Your task to perform on an android device: turn off translation in the chrome app Image 0: 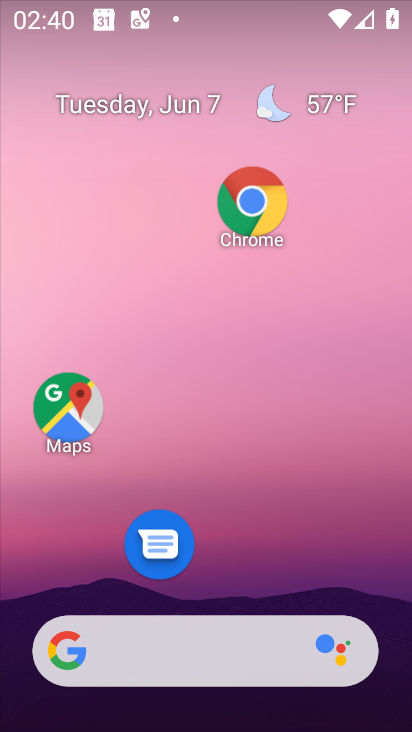
Step 0: click (260, 195)
Your task to perform on an android device: turn off translation in the chrome app Image 1: 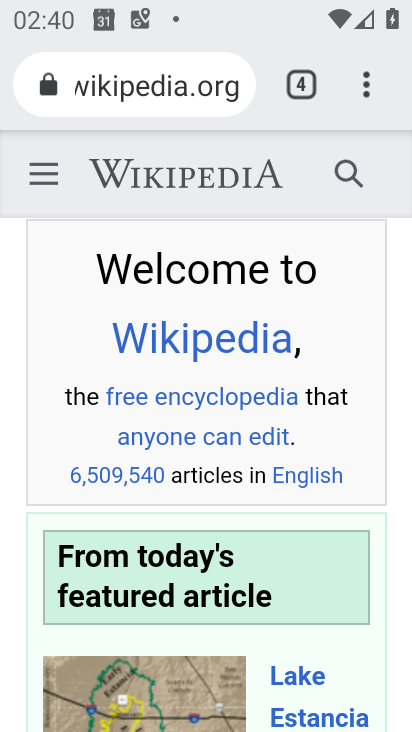
Step 1: click (380, 82)
Your task to perform on an android device: turn off translation in the chrome app Image 2: 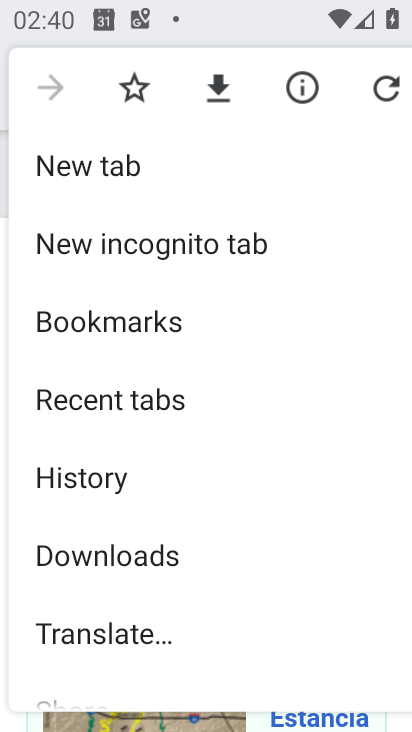
Step 2: drag from (168, 593) to (182, 283)
Your task to perform on an android device: turn off translation in the chrome app Image 3: 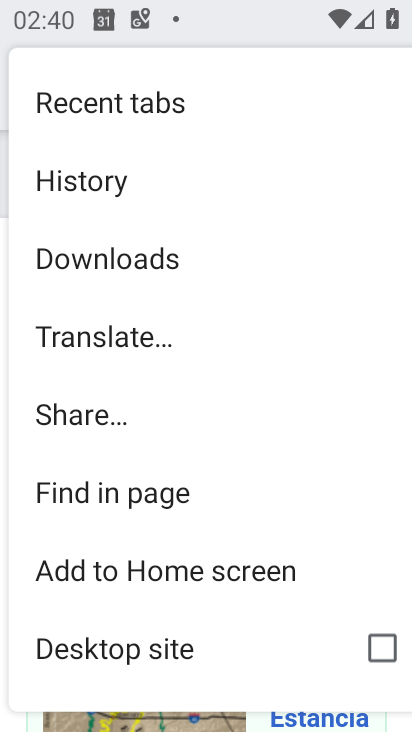
Step 3: drag from (146, 611) to (235, 258)
Your task to perform on an android device: turn off translation in the chrome app Image 4: 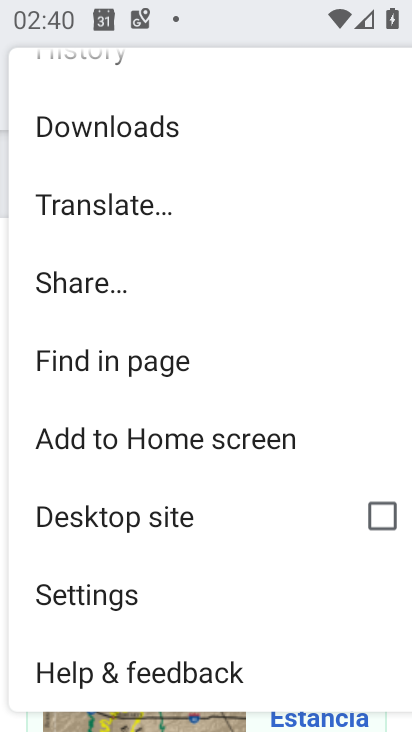
Step 4: click (102, 600)
Your task to perform on an android device: turn off translation in the chrome app Image 5: 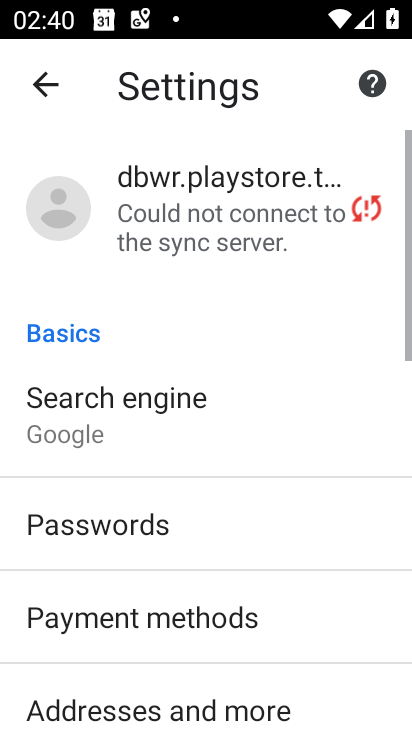
Step 5: drag from (157, 595) to (208, 222)
Your task to perform on an android device: turn off translation in the chrome app Image 6: 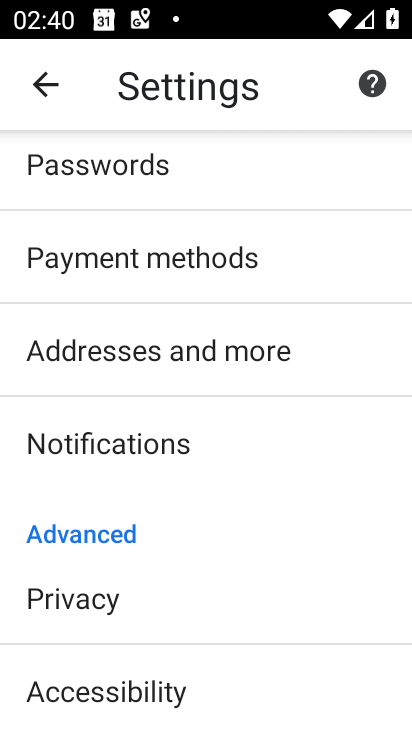
Step 6: drag from (143, 615) to (186, 309)
Your task to perform on an android device: turn off translation in the chrome app Image 7: 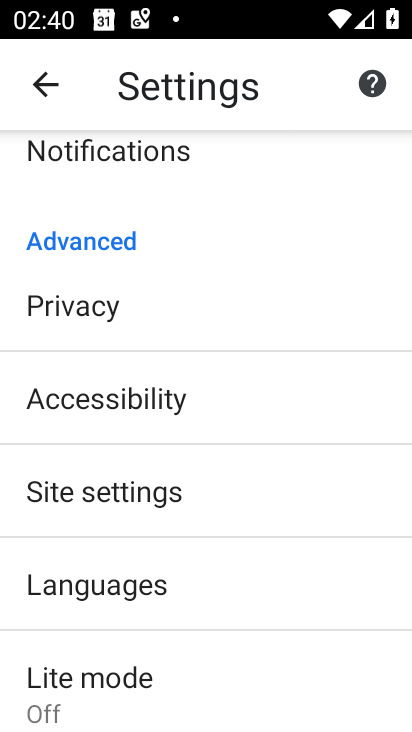
Step 7: drag from (118, 667) to (118, 570)
Your task to perform on an android device: turn off translation in the chrome app Image 8: 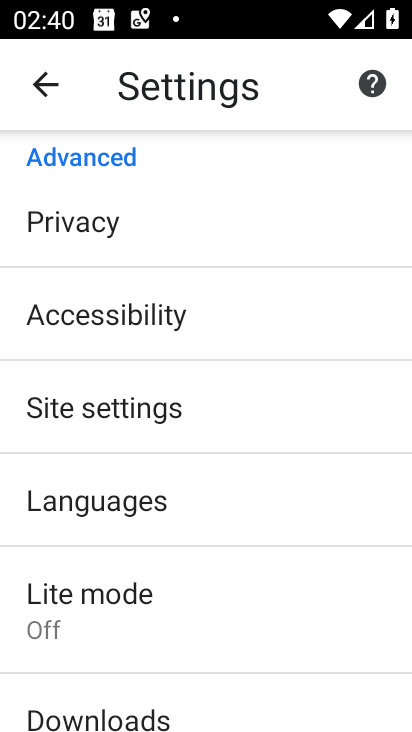
Step 8: click (81, 475)
Your task to perform on an android device: turn off translation in the chrome app Image 9: 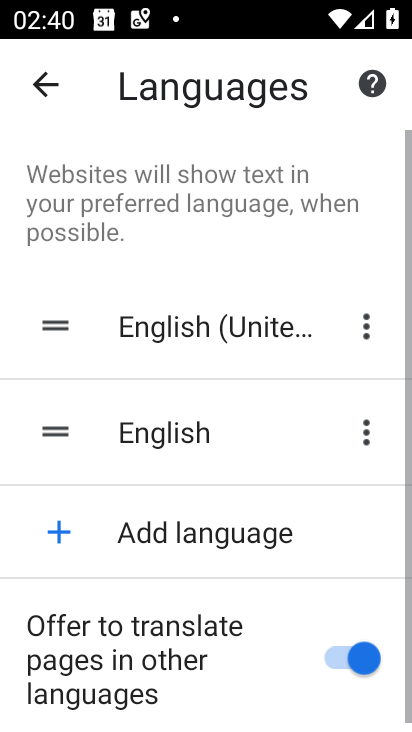
Step 9: click (355, 657)
Your task to perform on an android device: turn off translation in the chrome app Image 10: 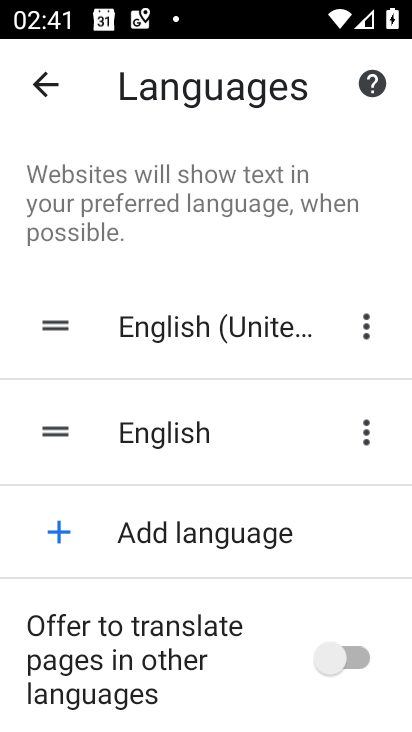
Step 10: task complete